Your task to perform on an android device: Go to Amazon Image 0: 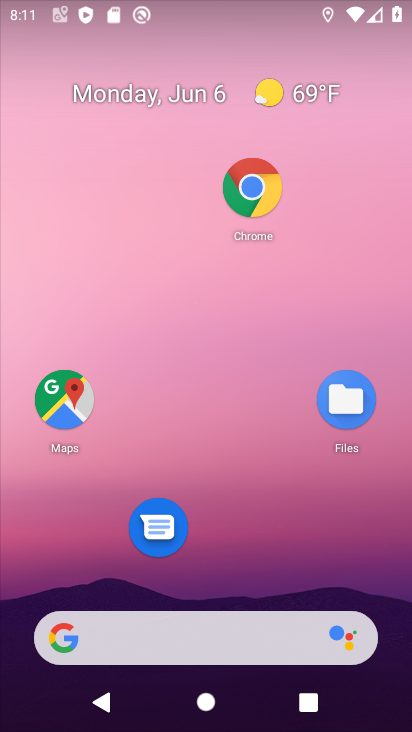
Step 0: click (257, 188)
Your task to perform on an android device: Go to Amazon Image 1: 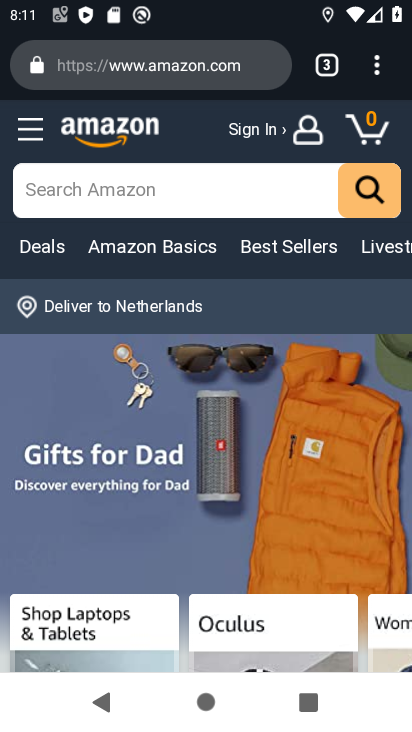
Step 1: task complete